Your task to perform on an android device: turn off airplane mode Image 0: 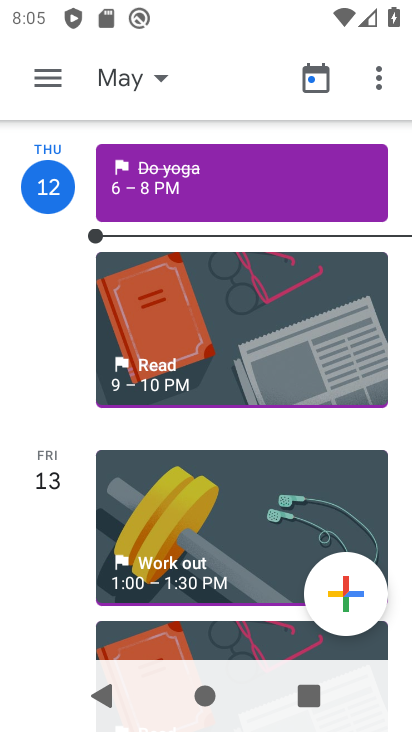
Step 0: press home button
Your task to perform on an android device: turn off airplane mode Image 1: 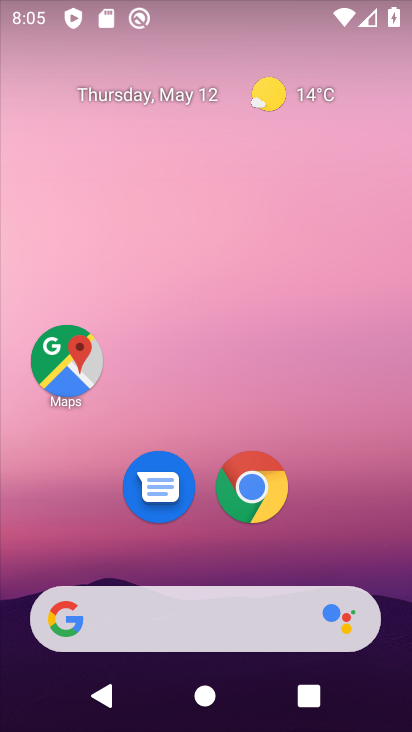
Step 1: drag from (338, 540) to (338, 2)
Your task to perform on an android device: turn off airplane mode Image 2: 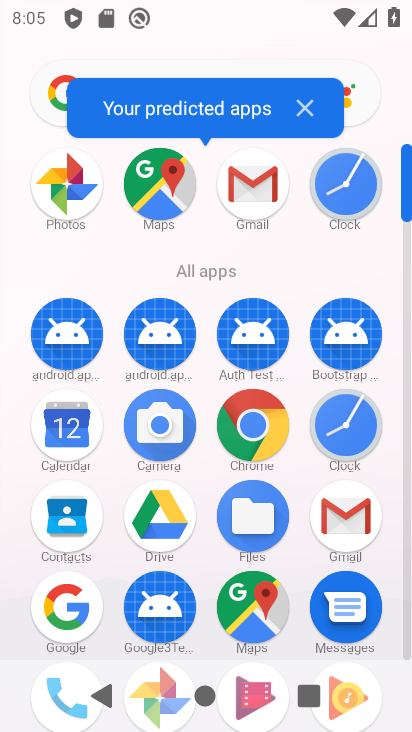
Step 2: click (411, 513)
Your task to perform on an android device: turn off airplane mode Image 3: 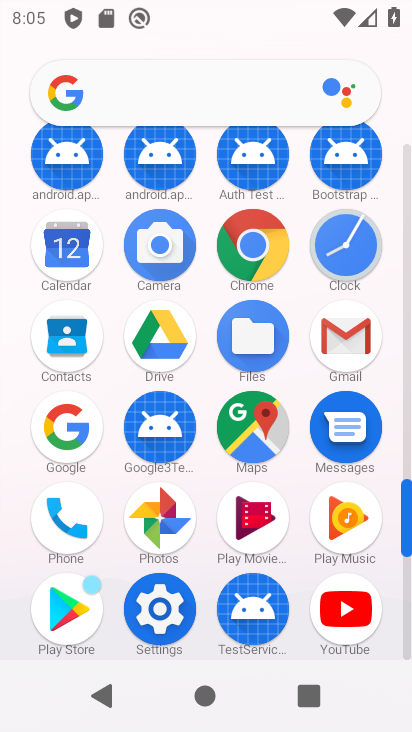
Step 3: click (156, 610)
Your task to perform on an android device: turn off airplane mode Image 4: 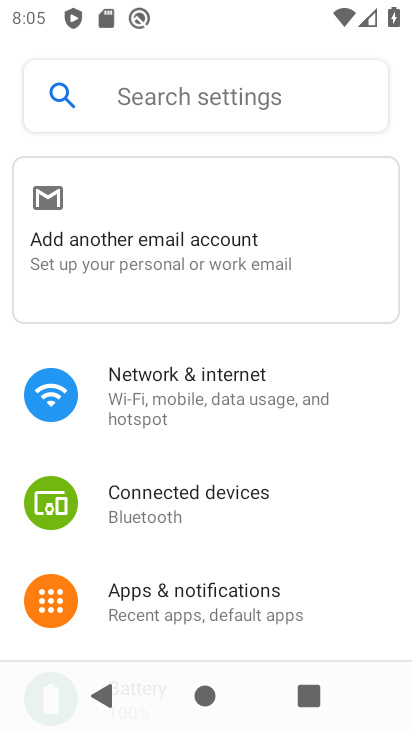
Step 4: click (166, 391)
Your task to perform on an android device: turn off airplane mode Image 5: 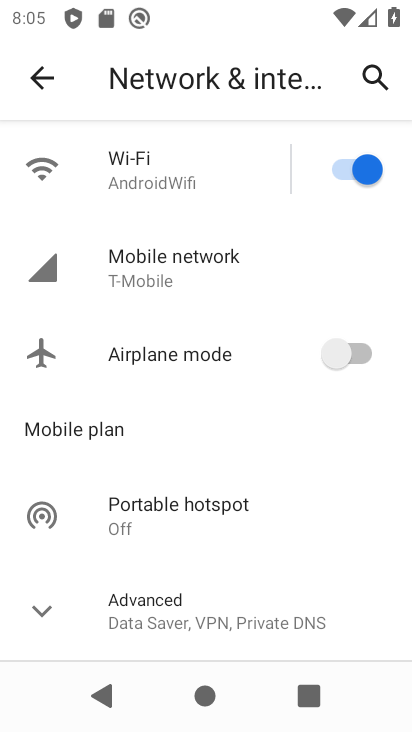
Step 5: task complete